Your task to perform on an android device: make emails show in primary in the gmail app Image 0: 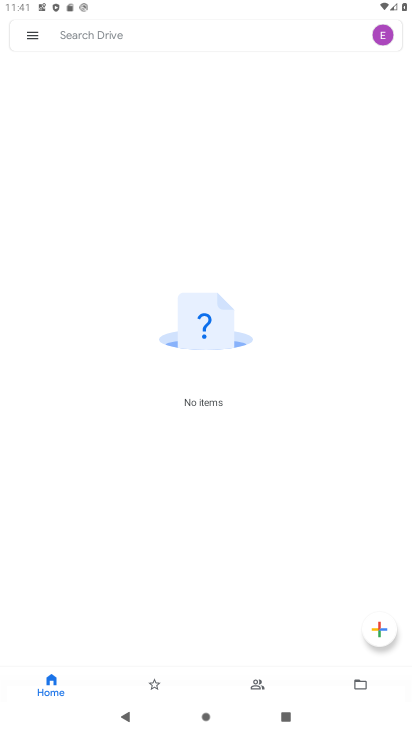
Step 0: press home button
Your task to perform on an android device: make emails show in primary in the gmail app Image 1: 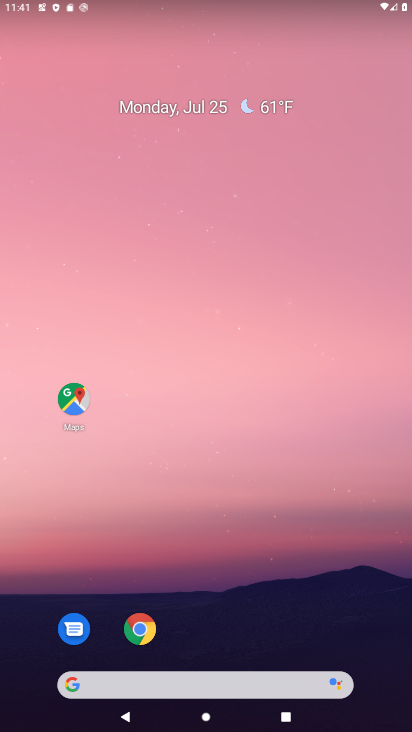
Step 1: drag from (200, 626) to (212, 132)
Your task to perform on an android device: make emails show in primary in the gmail app Image 2: 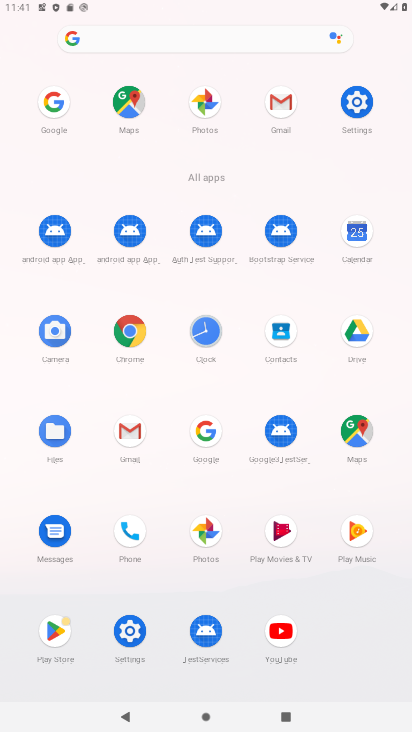
Step 2: click (274, 112)
Your task to perform on an android device: make emails show in primary in the gmail app Image 3: 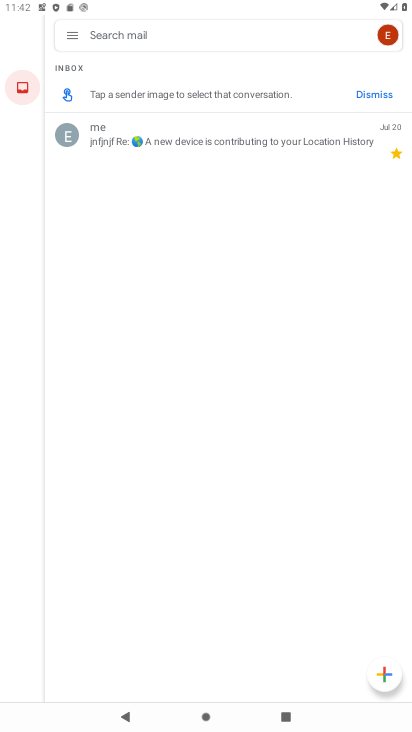
Step 3: click (78, 36)
Your task to perform on an android device: make emails show in primary in the gmail app Image 4: 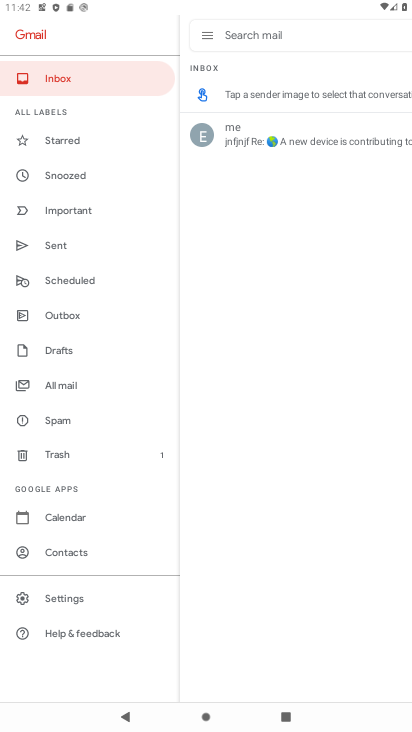
Step 4: click (89, 596)
Your task to perform on an android device: make emails show in primary in the gmail app Image 5: 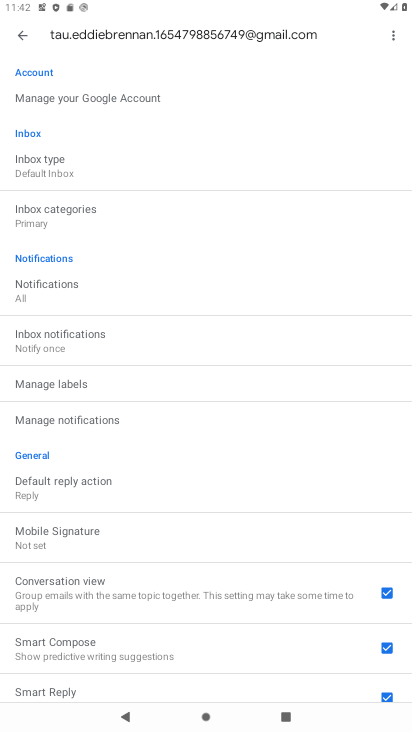
Step 5: click (106, 173)
Your task to perform on an android device: make emails show in primary in the gmail app Image 6: 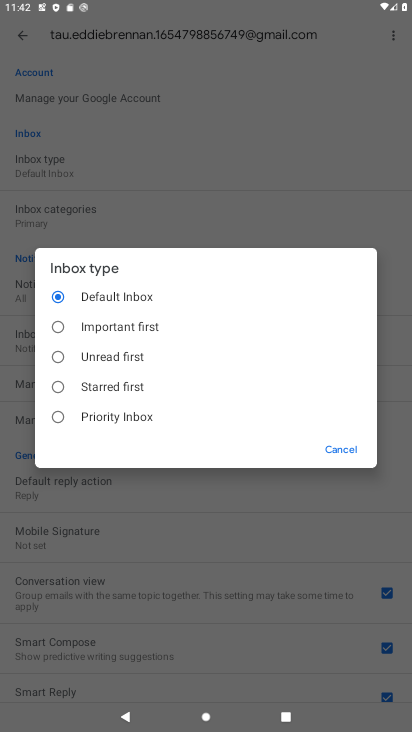
Step 6: task complete